Your task to perform on an android device: Show me the alarms in the clock app Image 0: 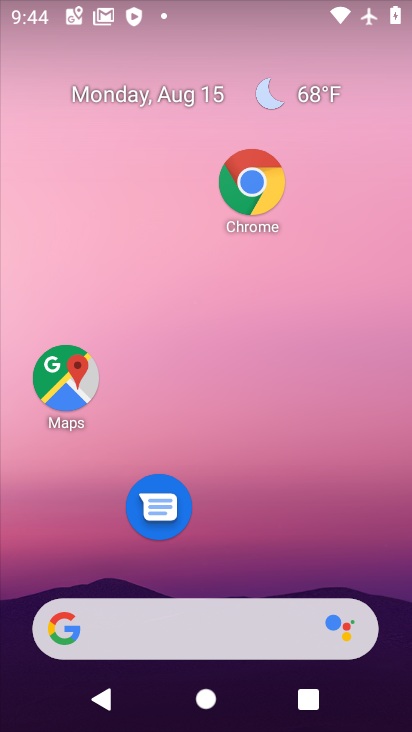
Step 0: drag from (243, 555) to (359, 85)
Your task to perform on an android device: Show me the alarms in the clock app Image 1: 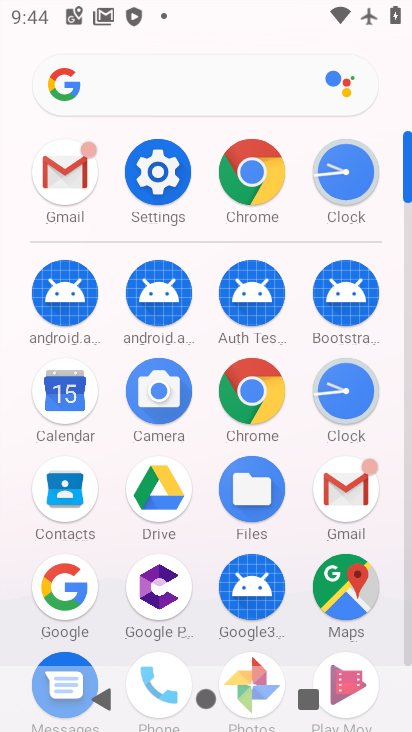
Step 1: click (365, 196)
Your task to perform on an android device: Show me the alarms in the clock app Image 2: 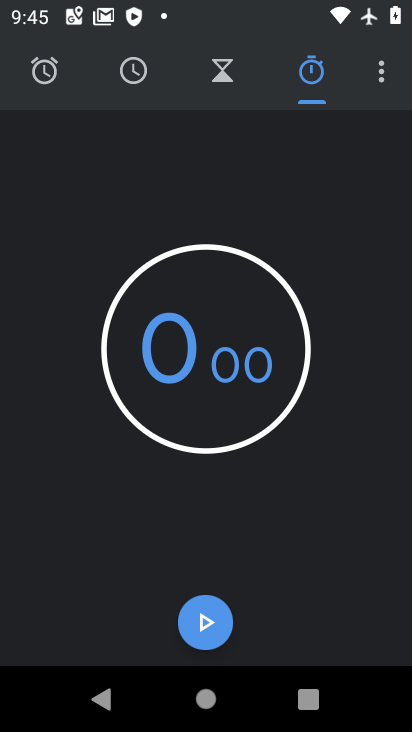
Step 2: task complete